Your task to perform on an android device: open app "ZOOM Cloud Meetings" (install if not already installed) and enter user name: "bauxite@icloud.com" and password: "dim" Image 0: 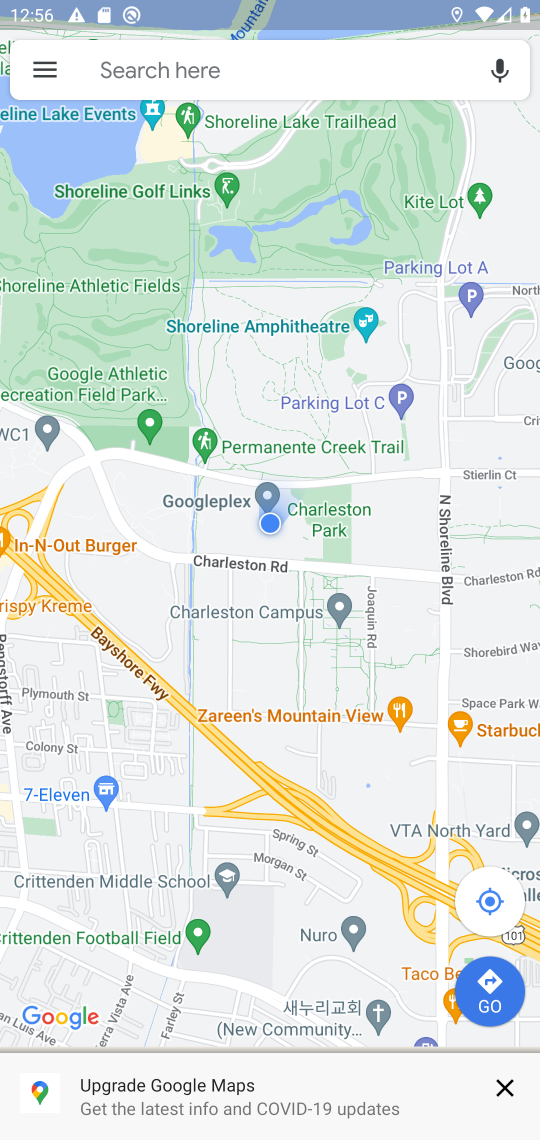
Step 0: press home button
Your task to perform on an android device: open app "ZOOM Cloud Meetings" (install if not already installed) and enter user name: "bauxite@icloud.com" and password: "dim" Image 1: 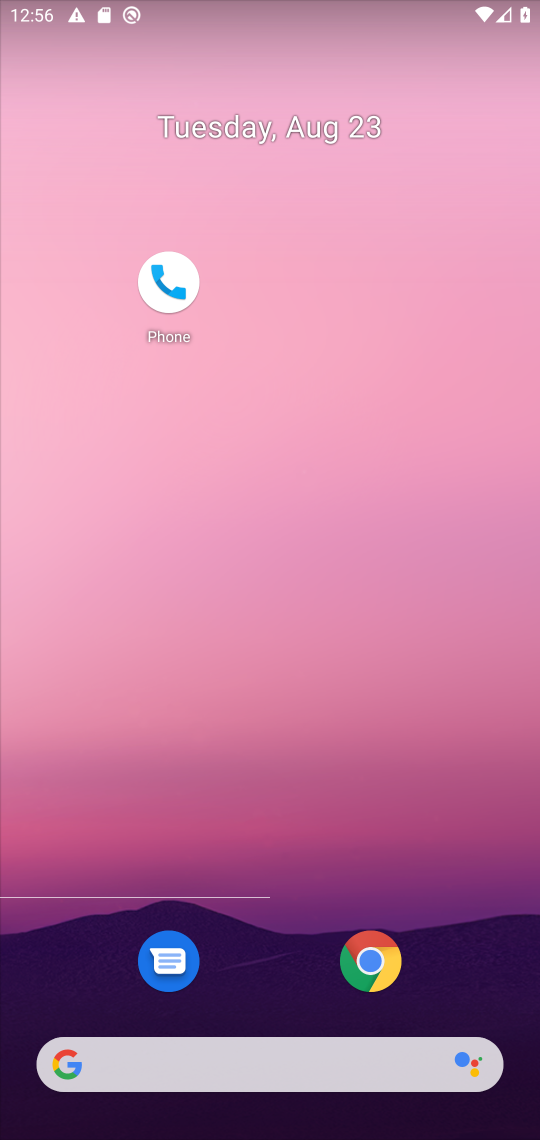
Step 1: drag from (268, 976) to (257, 101)
Your task to perform on an android device: open app "ZOOM Cloud Meetings" (install if not already installed) and enter user name: "bauxite@icloud.com" and password: "dim" Image 2: 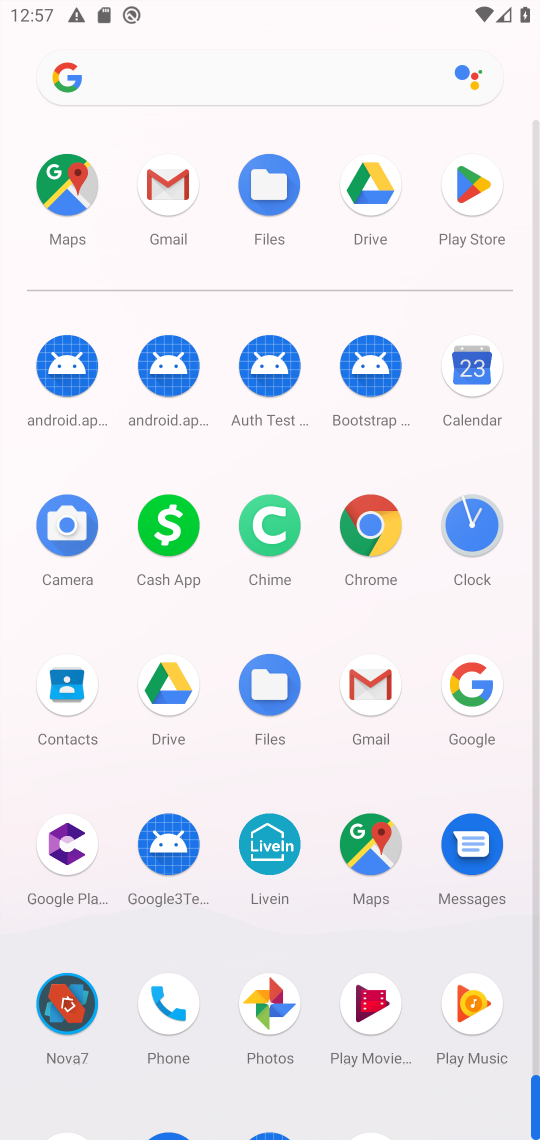
Step 2: click (446, 214)
Your task to perform on an android device: open app "ZOOM Cloud Meetings" (install if not already installed) and enter user name: "bauxite@icloud.com" and password: "dim" Image 3: 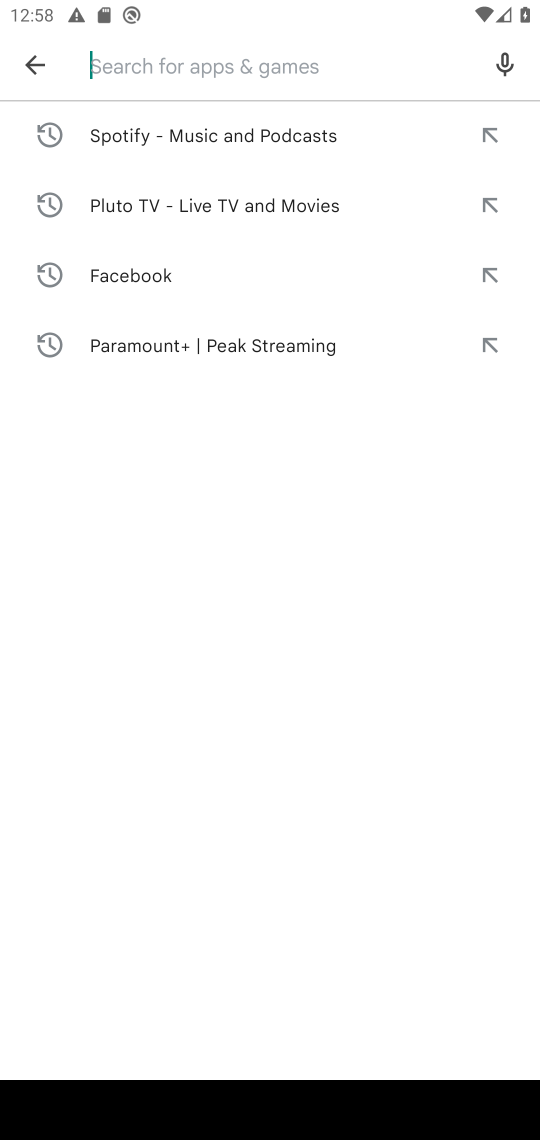
Step 3: type "zoom"
Your task to perform on an android device: open app "ZOOM Cloud Meetings" (install if not already installed) and enter user name: "bauxite@icloud.com" and password: "dim" Image 4: 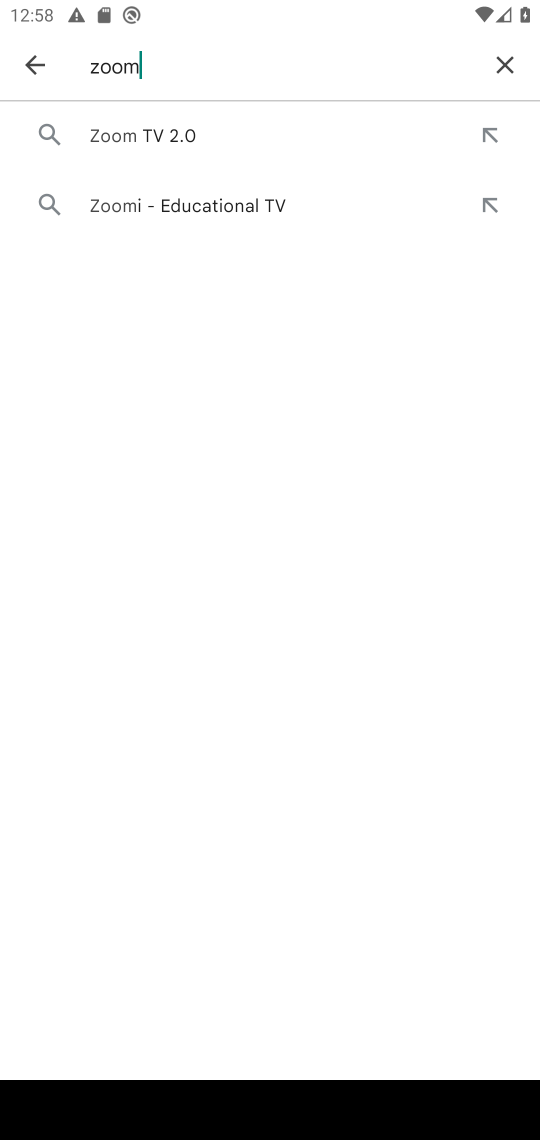
Step 4: task complete